Your task to perform on an android device: add a contact Image 0: 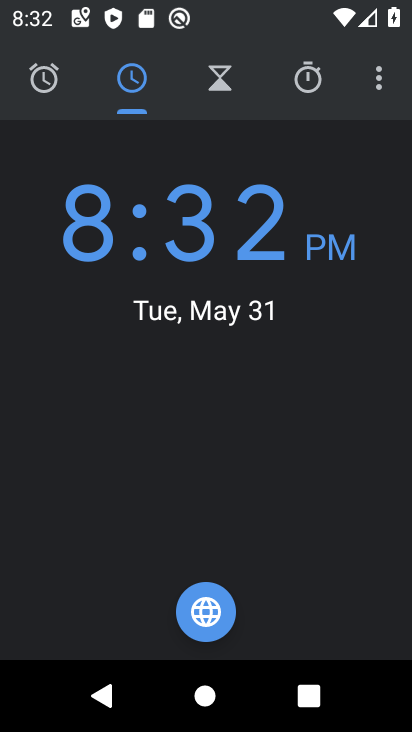
Step 0: press home button
Your task to perform on an android device: add a contact Image 1: 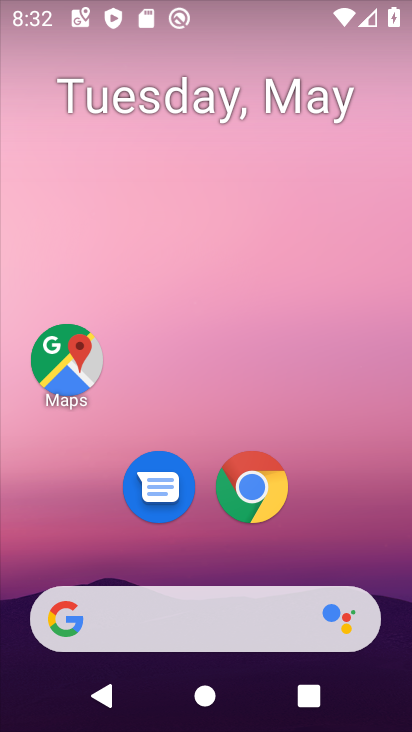
Step 1: drag from (368, 558) to (395, 207)
Your task to perform on an android device: add a contact Image 2: 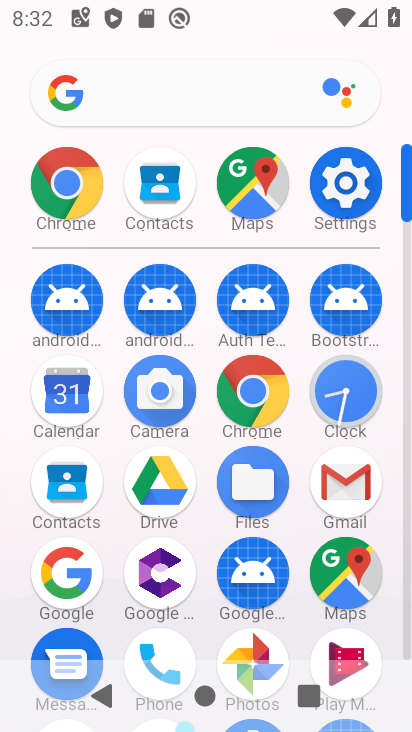
Step 2: click (69, 406)
Your task to perform on an android device: add a contact Image 3: 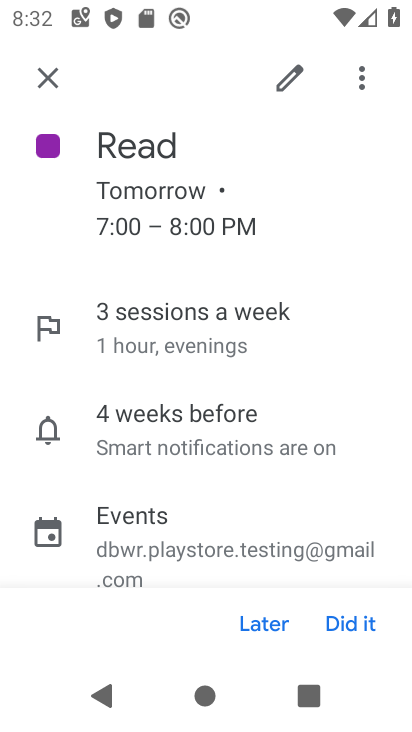
Step 3: press home button
Your task to perform on an android device: add a contact Image 4: 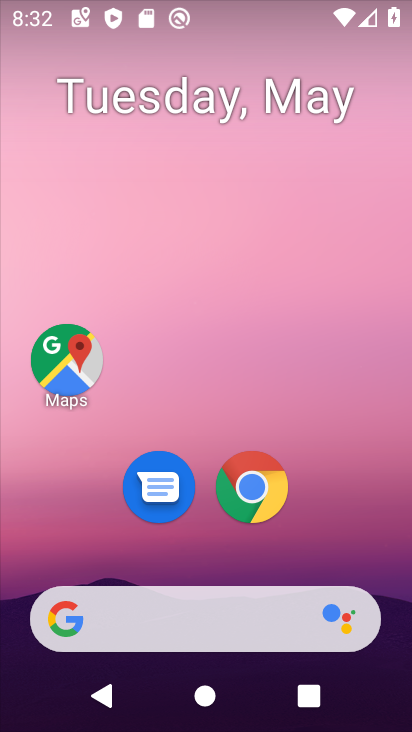
Step 4: drag from (335, 541) to (330, 181)
Your task to perform on an android device: add a contact Image 5: 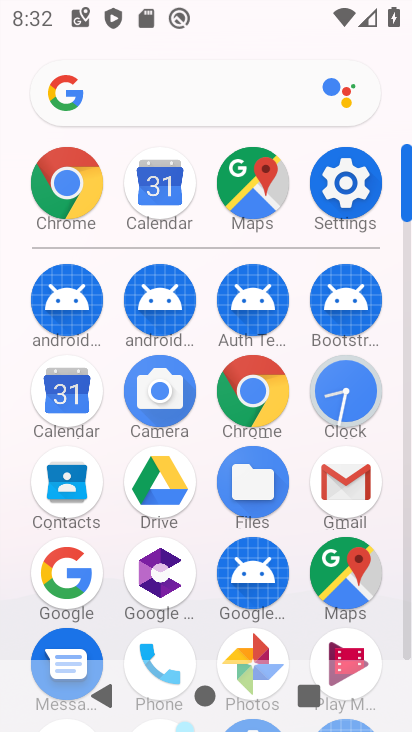
Step 5: click (81, 486)
Your task to perform on an android device: add a contact Image 6: 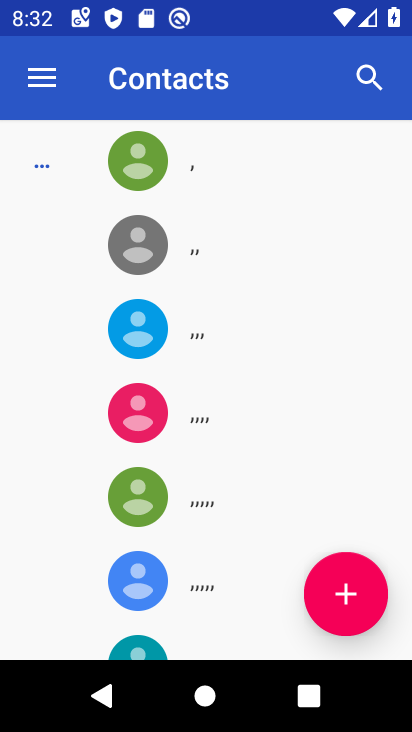
Step 6: click (342, 600)
Your task to perform on an android device: add a contact Image 7: 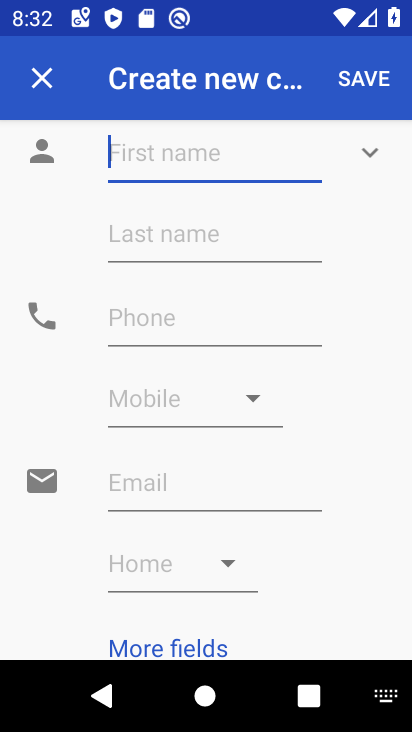
Step 7: click (251, 144)
Your task to perform on an android device: add a contact Image 8: 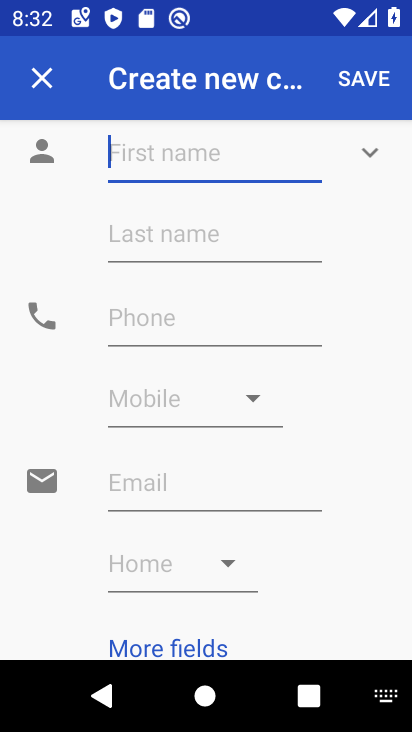
Step 8: type "my love "
Your task to perform on an android device: add a contact Image 9: 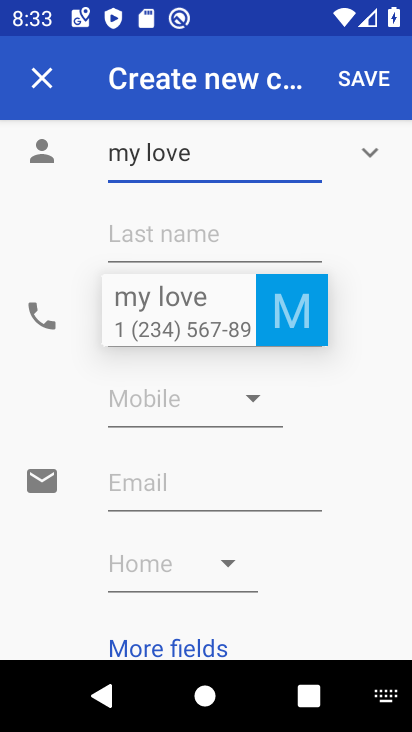
Step 9: click (392, 343)
Your task to perform on an android device: add a contact Image 10: 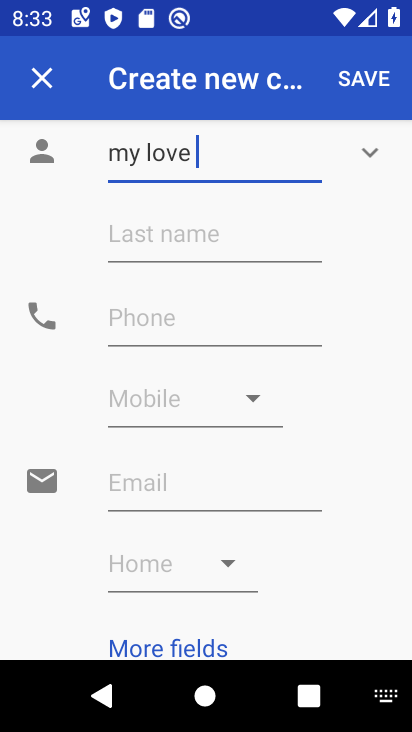
Step 10: click (288, 334)
Your task to perform on an android device: add a contact Image 11: 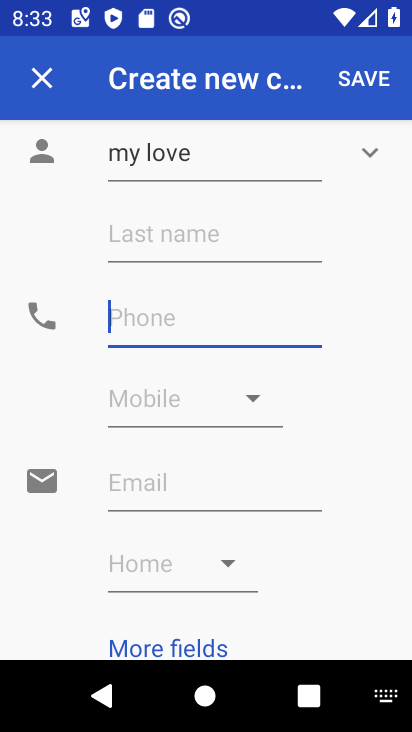
Step 11: type "123456789"
Your task to perform on an android device: add a contact Image 12: 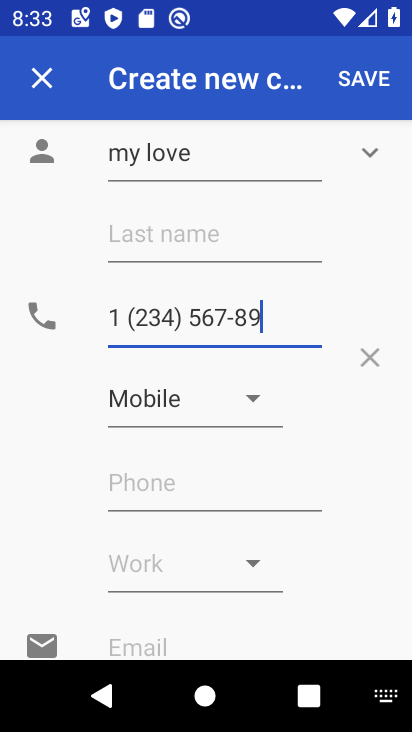
Step 12: click (364, 91)
Your task to perform on an android device: add a contact Image 13: 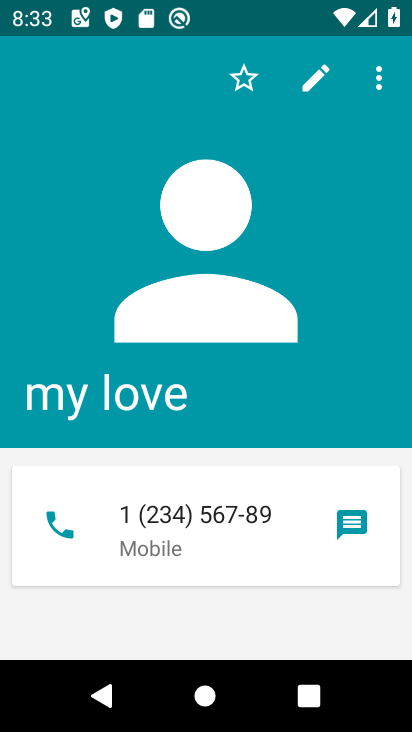
Step 13: task complete